Your task to perform on an android device: Go to ESPN.com Image 0: 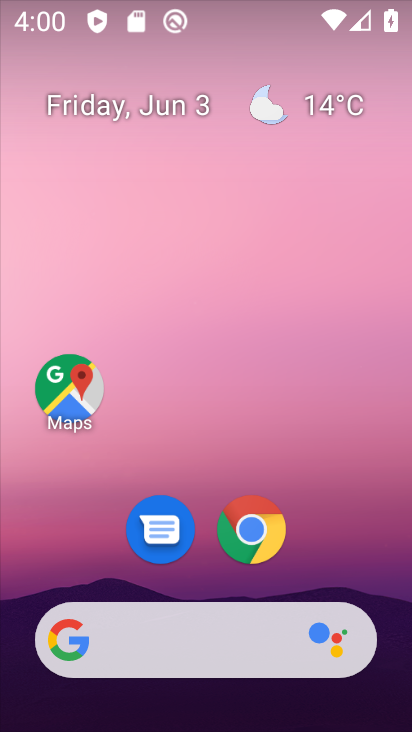
Step 0: drag from (316, 496) to (347, 37)
Your task to perform on an android device: Go to ESPN.com Image 1: 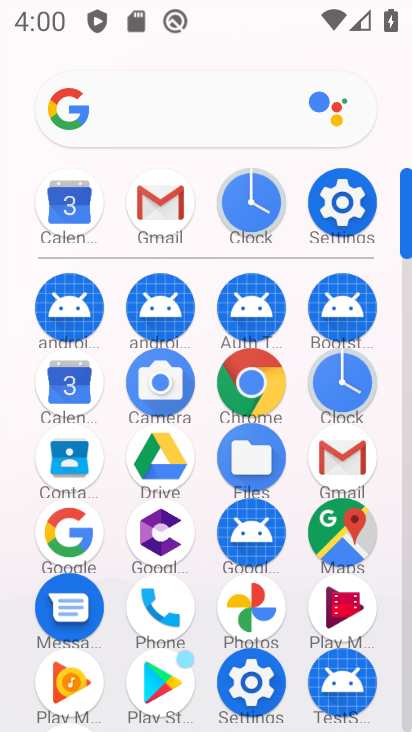
Step 1: click (244, 371)
Your task to perform on an android device: Go to ESPN.com Image 2: 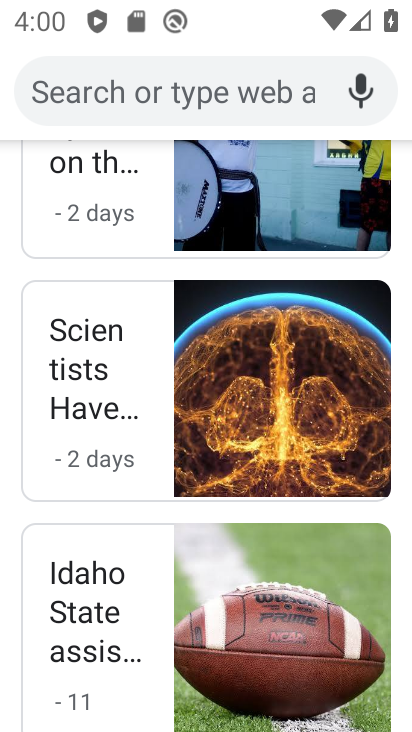
Step 2: drag from (237, 130) to (231, 724)
Your task to perform on an android device: Go to ESPN.com Image 3: 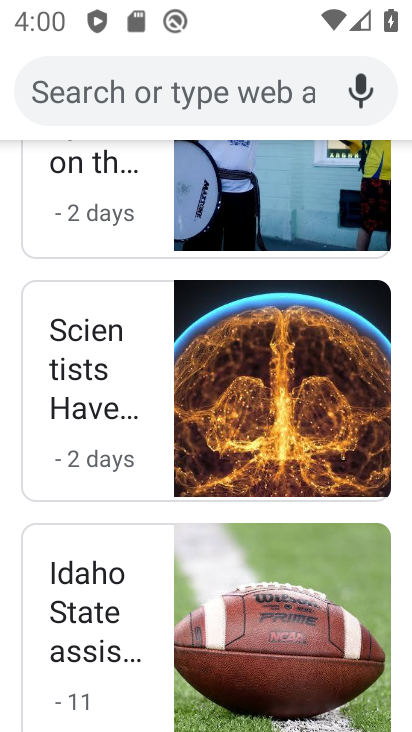
Step 3: drag from (134, 503) to (131, 730)
Your task to perform on an android device: Go to ESPN.com Image 4: 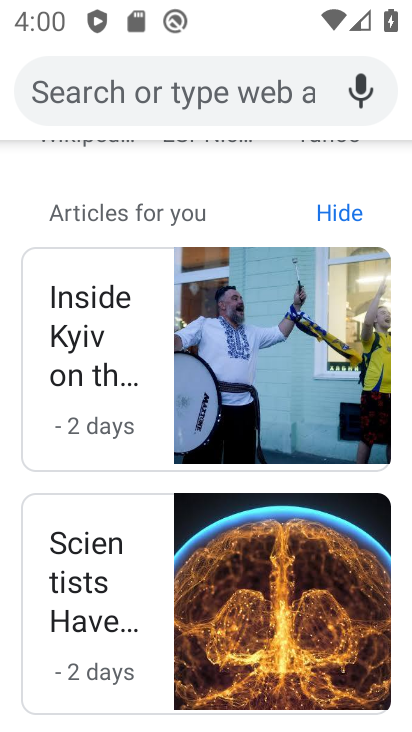
Step 4: drag from (250, 403) to (229, 693)
Your task to perform on an android device: Go to ESPN.com Image 5: 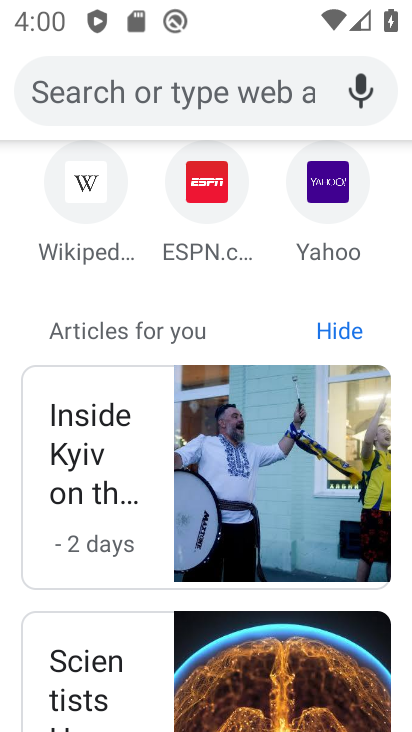
Step 5: drag from (205, 228) to (191, 715)
Your task to perform on an android device: Go to ESPN.com Image 6: 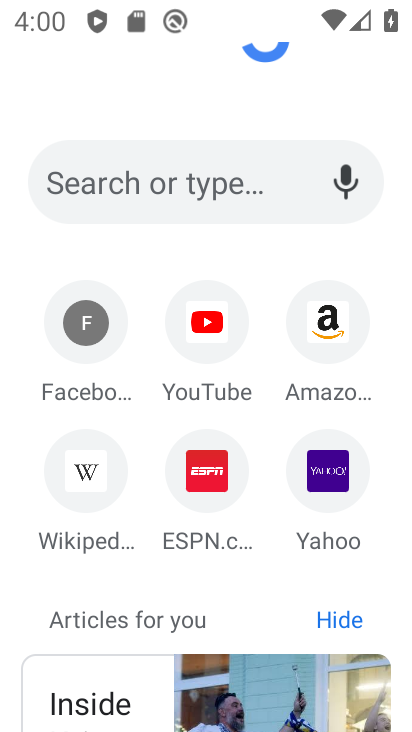
Step 6: click (209, 483)
Your task to perform on an android device: Go to ESPN.com Image 7: 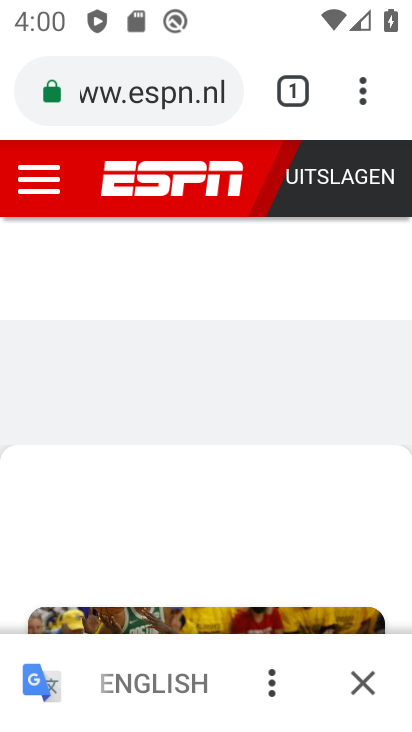
Step 7: task complete